Your task to perform on an android device: turn on location history Image 0: 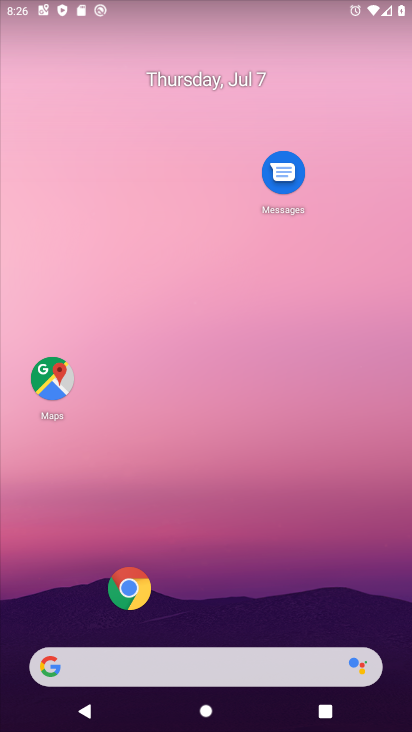
Step 0: click (46, 364)
Your task to perform on an android device: turn on location history Image 1: 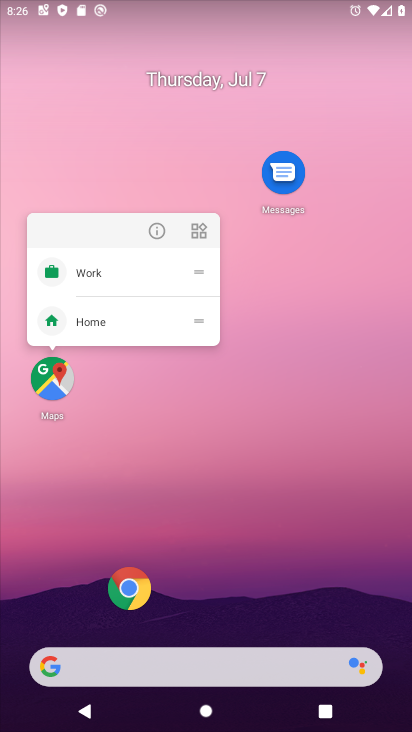
Step 1: click (46, 366)
Your task to perform on an android device: turn on location history Image 2: 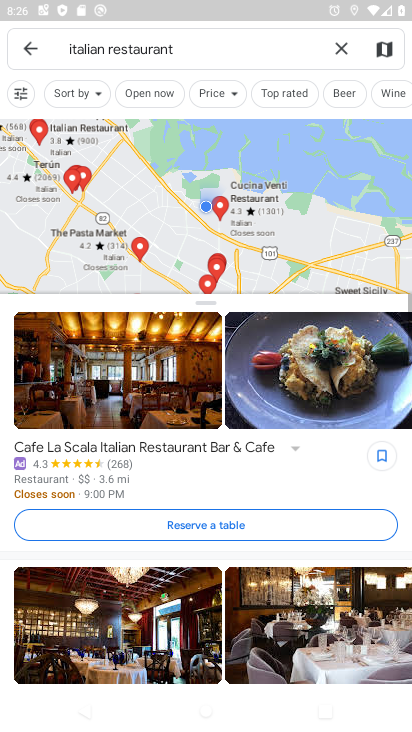
Step 2: click (25, 48)
Your task to perform on an android device: turn on location history Image 3: 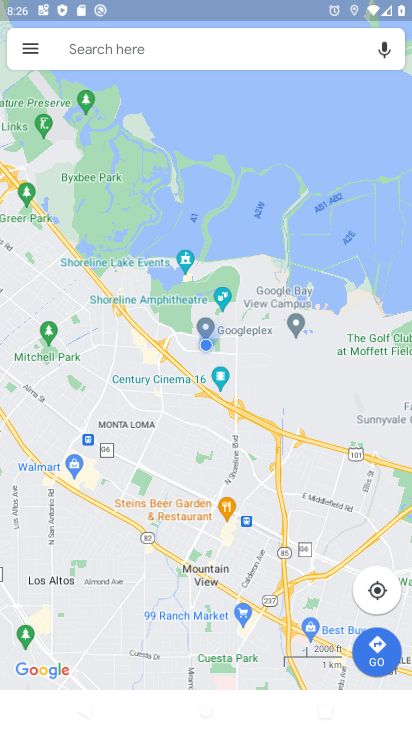
Step 3: click (25, 47)
Your task to perform on an android device: turn on location history Image 4: 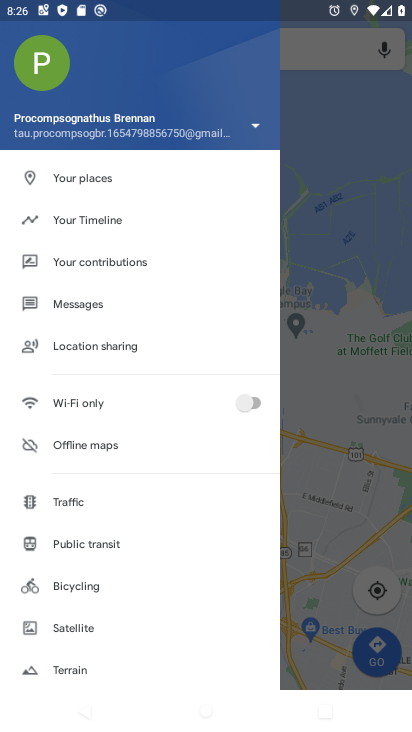
Step 4: drag from (139, 599) to (195, 114)
Your task to perform on an android device: turn on location history Image 5: 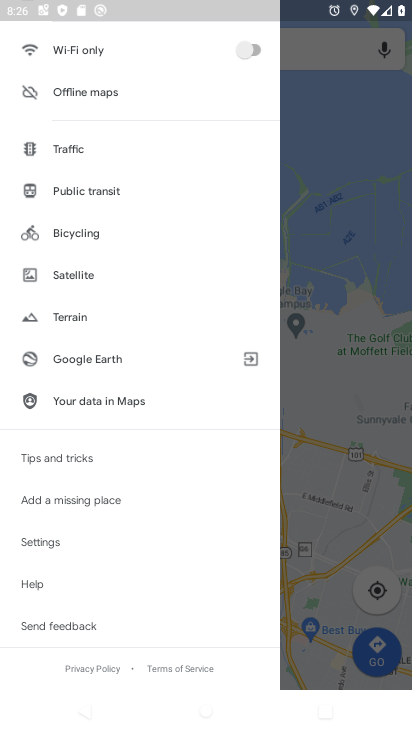
Step 5: drag from (136, 93) to (84, 564)
Your task to perform on an android device: turn on location history Image 6: 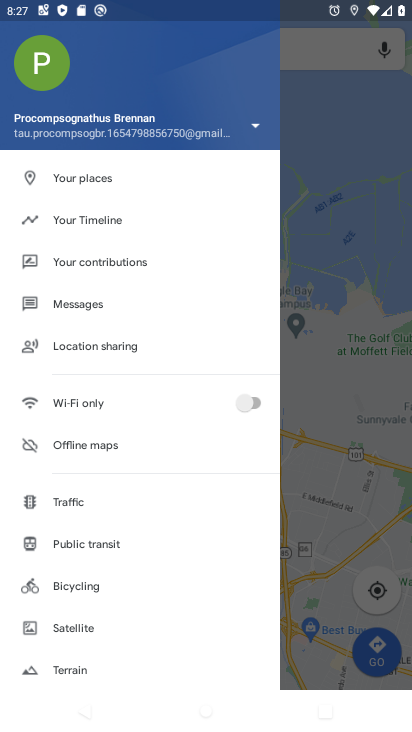
Step 6: drag from (185, 458) to (207, 43)
Your task to perform on an android device: turn on location history Image 7: 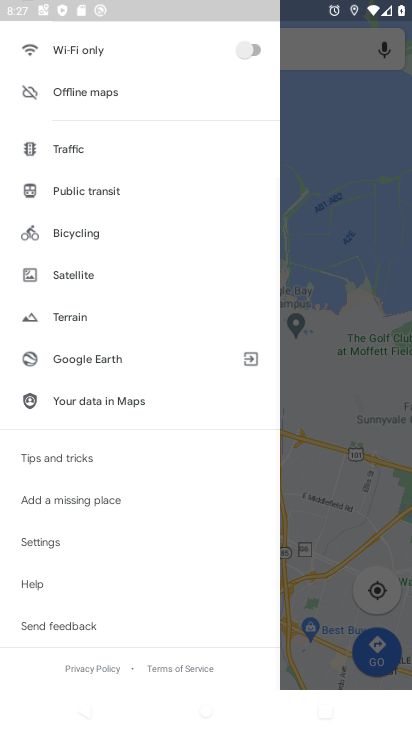
Step 7: click (54, 541)
Your task to perform on an android device: turn on location history Image 8: 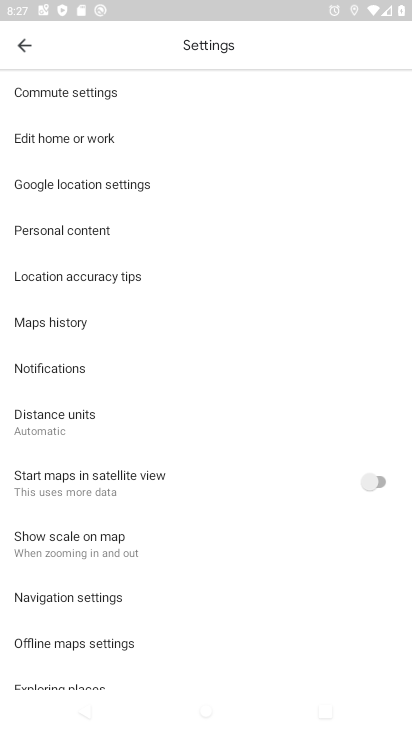
Step 8: click (58, 319)
Your task to perform on an android device: turn on location history Image 9: 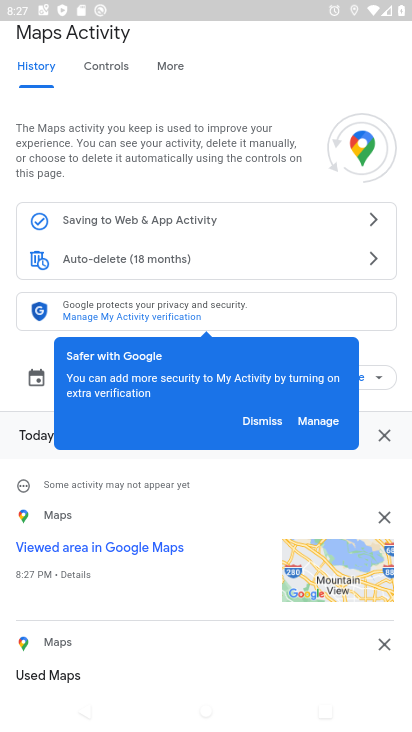
Step 9: task complete